Your task to perform on an android device: see sites visited before in the chrome app Image 0: 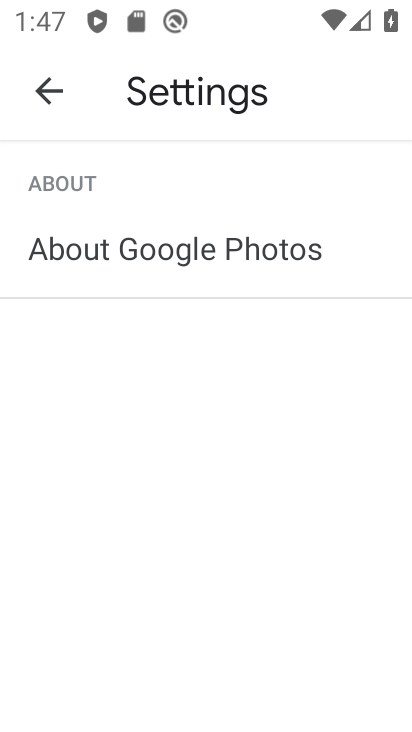
Step 0: press home button
Your task to perform on an android device: see sites visited before in the chrome app Image 1: 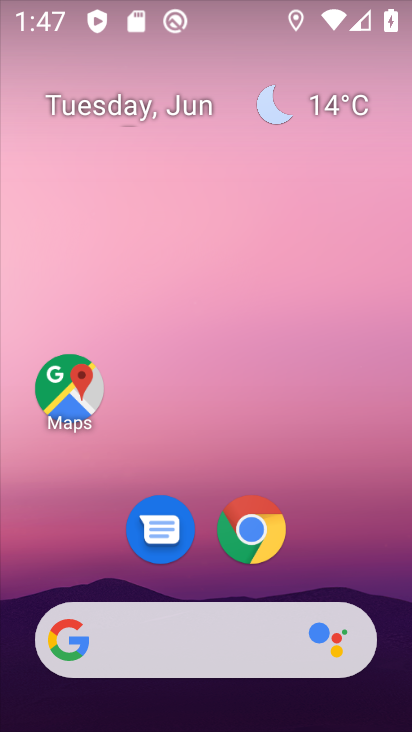
Step 1: click (251, 539)
Your task to perform on an android device: see sites visited before in the chrome app Image 2: 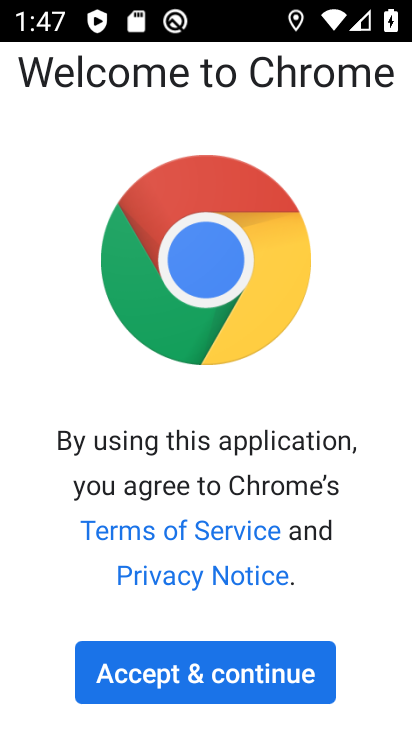
Step 2: click (272, 676)
Your task to perform on an android device: see sites visited before in the chrome app Image 3: 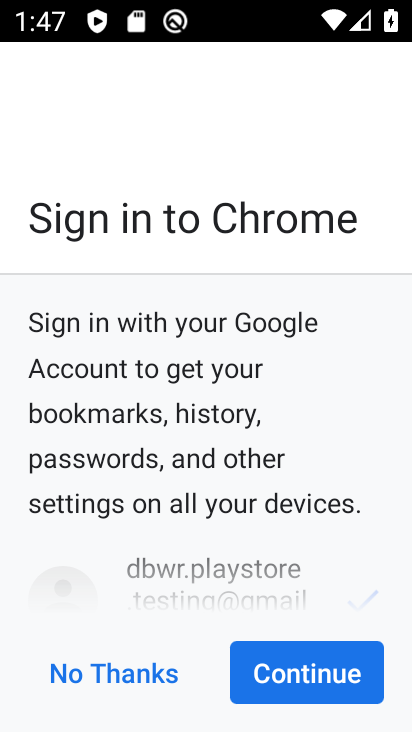
Step 3: click (273, 676)
Your task to perform on an android device: see sites visited before in the chrome app Image 4: 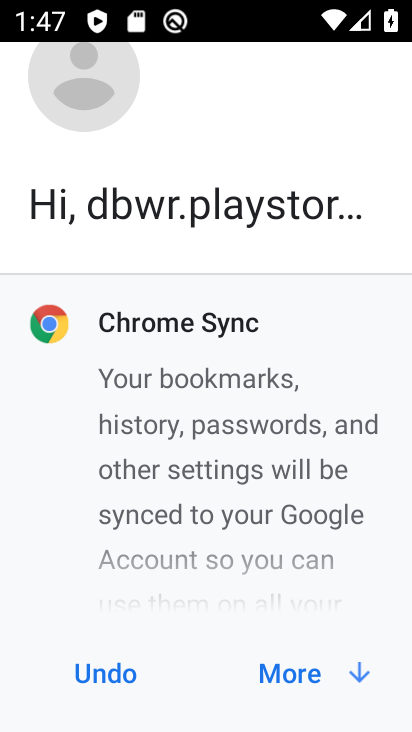
Step 4: click (274, 676)
Your task to perform on an android device: see sites visited before in the chrome app Image 5: 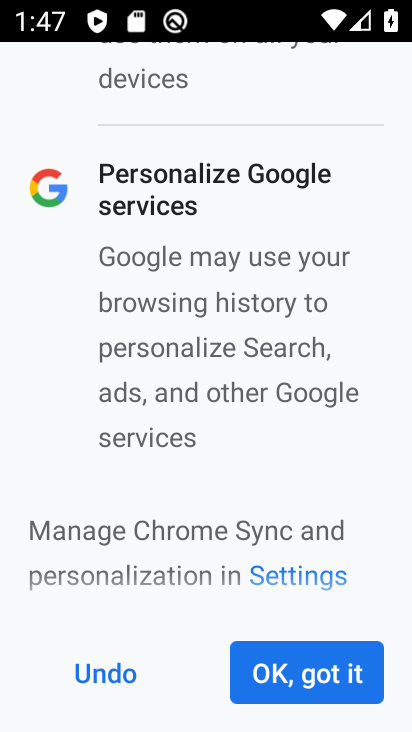
Step 5: click (299, 669)
Your task to perform on an android device: see sites visited before in the chrome app Image 6: 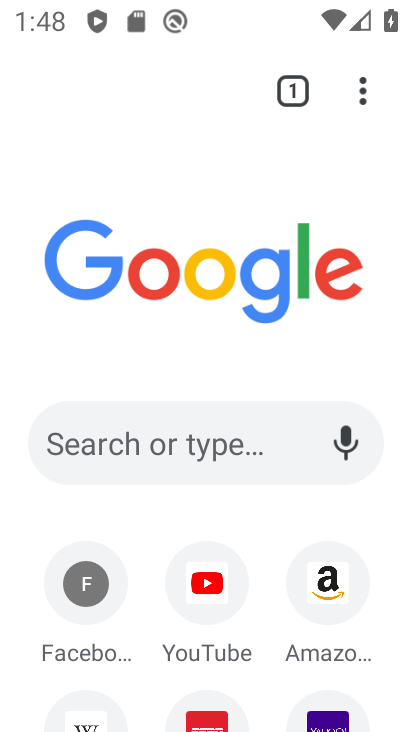
Step 6: task complete